Your task to perform on an android device: turn off location history Image 0: 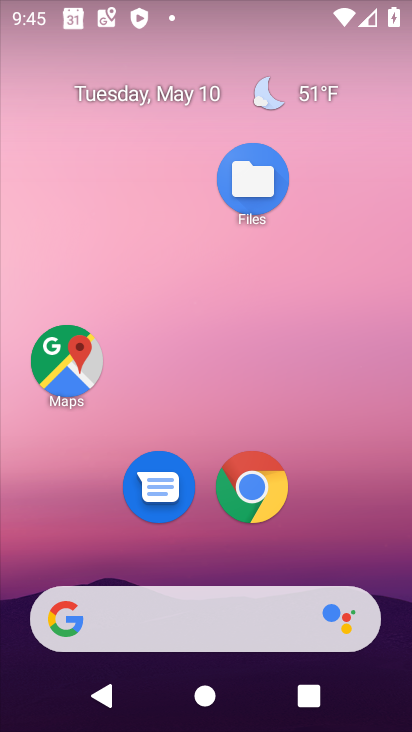
Step 0: drag from (195, 555) to (168, 92)
Your task to perform on an android device: turn off location history Image 1: 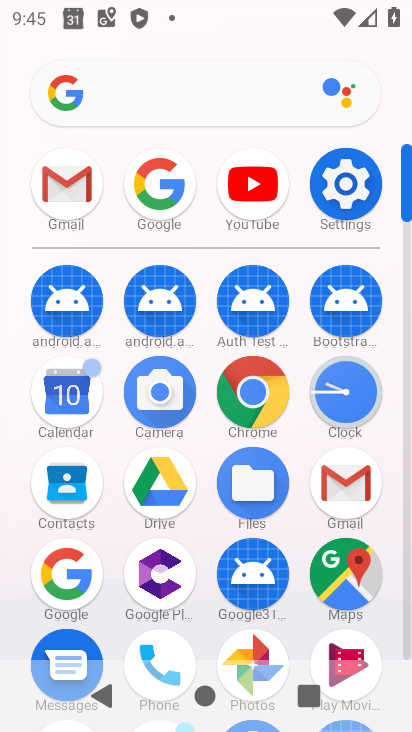
Step 1: click (339, 166)
Your task to perform on an android device: turn off location history Image 2: 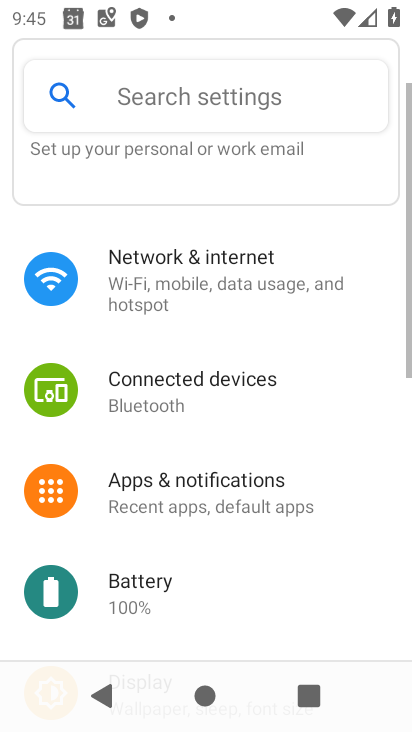
Step 2: drag from (230, 539) to (235, 193)
Your task to perform on an android device: turn off location history Image 3: 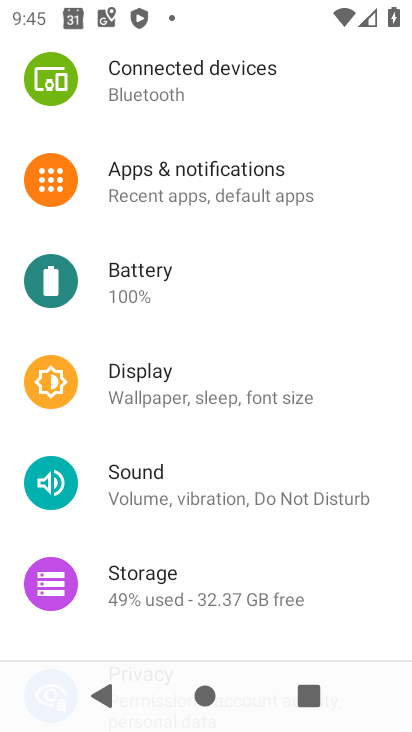
Step 3: drag from (172, 635) to (164, 281)
Your task to perform on an android device: turn off location history Image 4: 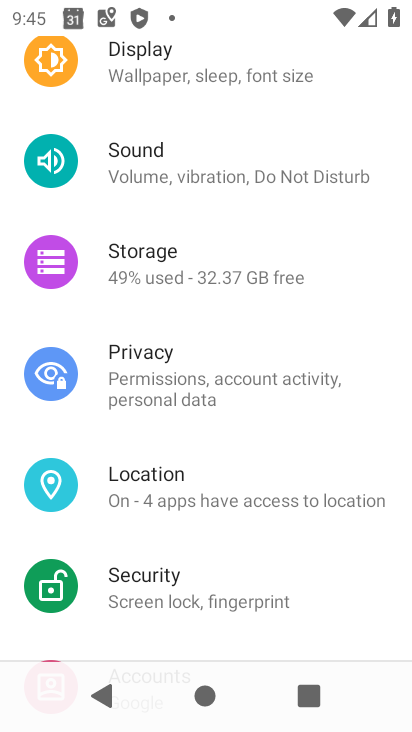
Step 4: click (164, 494)
Your task to perform on an android device: turn off location history Image 5: 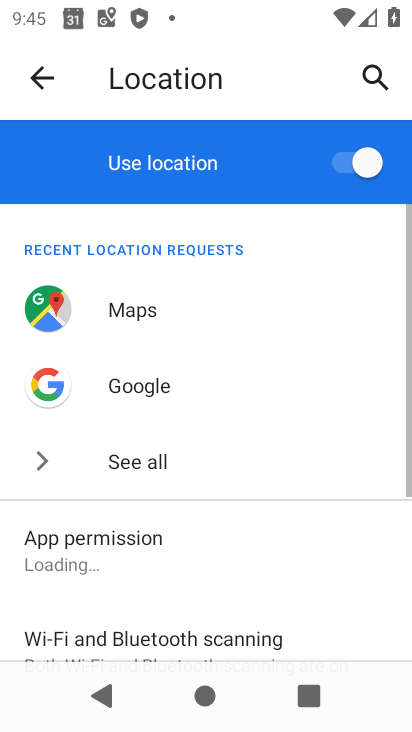
Step 5: drag from (223, 557) to (203, 187)
Your task to perform on an android device: turn off location history Image 6: 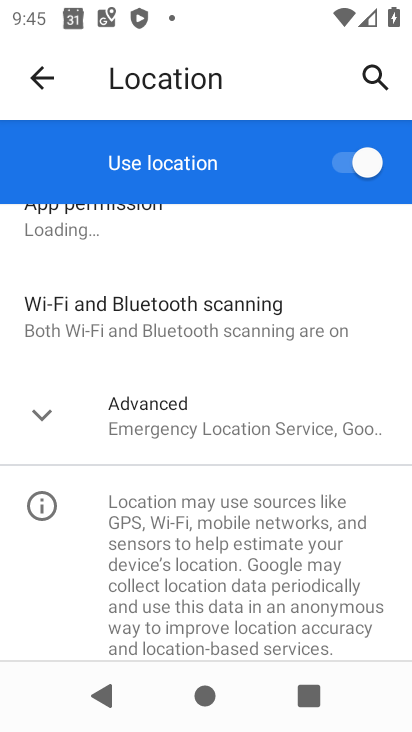
Step 6: click (142, 414)
Your task to perform on an android device: turn off location history Image 7: 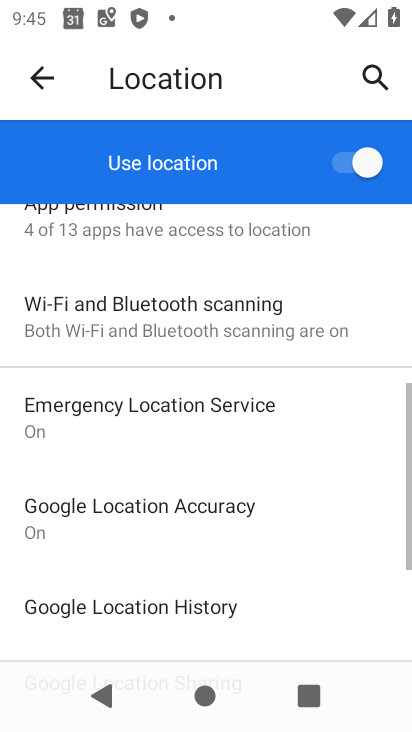
Step 7: drag from (241, 566) to (226, 408)
Your task to perform on an android device: turn off location history Image 8: 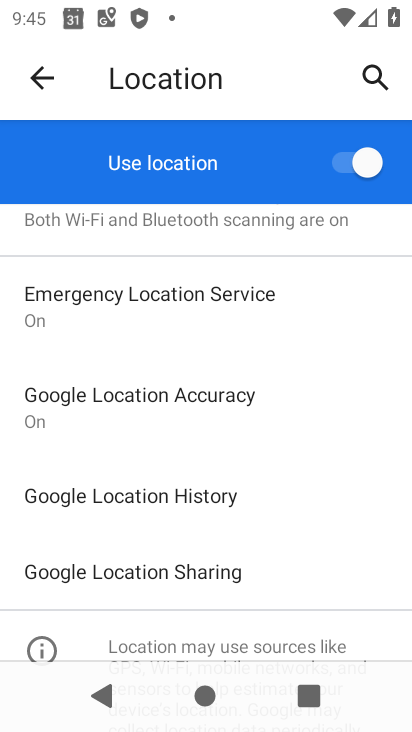
Step 8: click (188, 499)
Your task to perform on an android device: turn off location history Image 9: 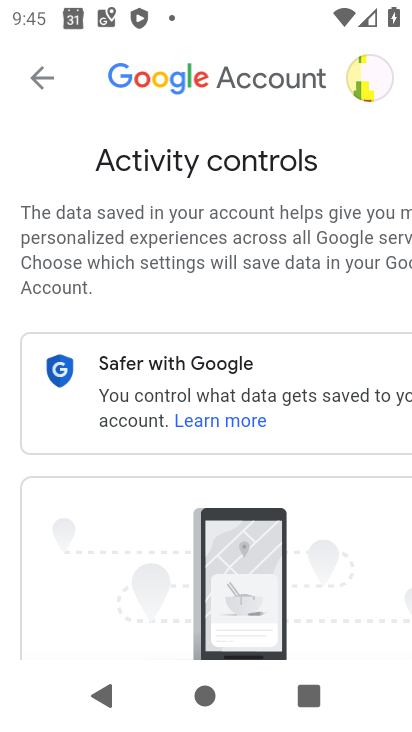
Step 9: task complete